Your task to perform on an android device: Open Google Image 0: 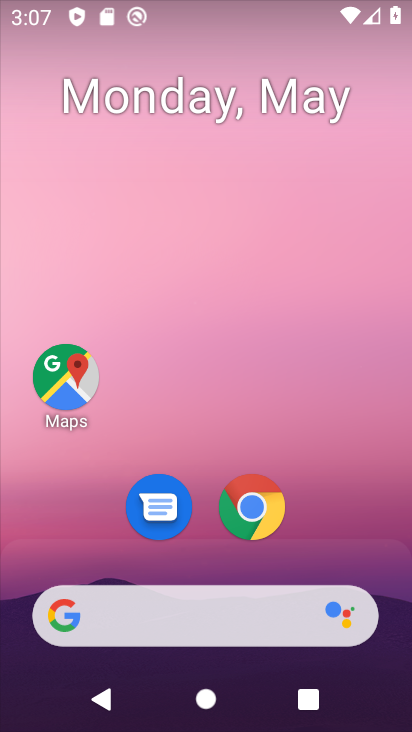
Step 0: drag from (120, 572) to (197, 43)
Your task to perform on an android device: Open Google Image 1: 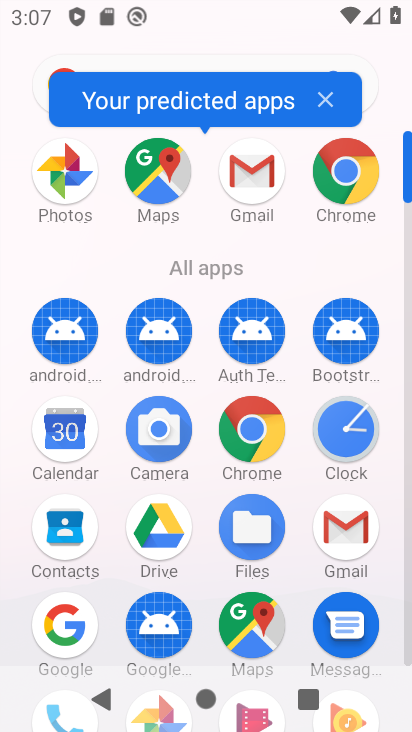
Step 1: click (56, 634)
Your task to perform on an android device: Open Google Image 2: 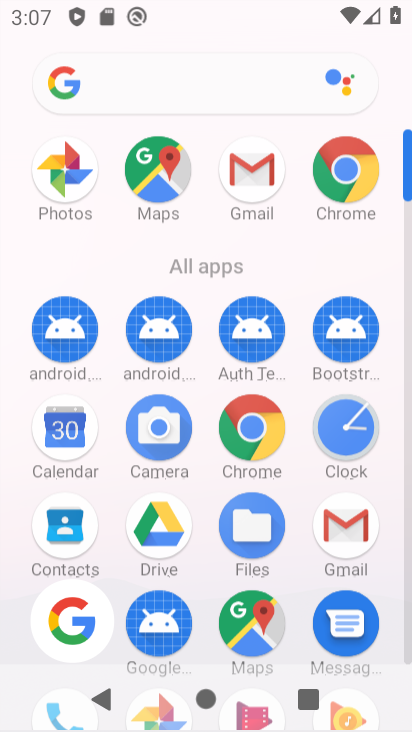
Step 2: click (76, 628)
Your task to perform on an android device: Open Google Image 3: 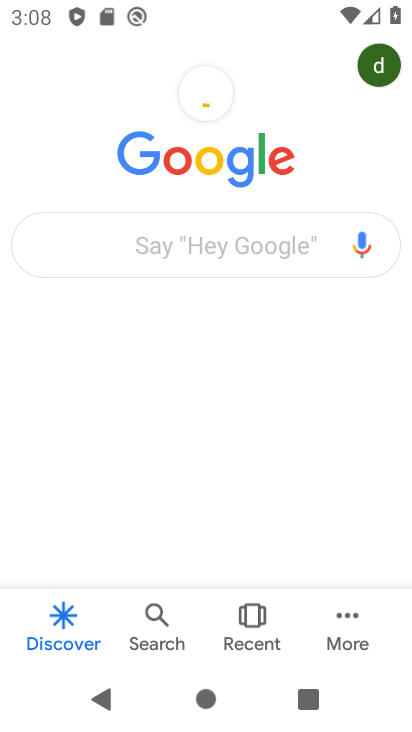
Step 3: task complete